Your task to perform on an android device: turn off wifi Image 0: 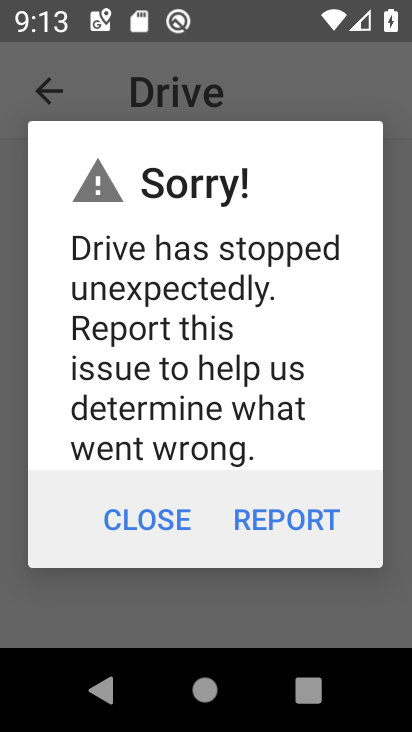
Step 0: press home button
Your task to perform on an android device: turn off wifi Image 1: 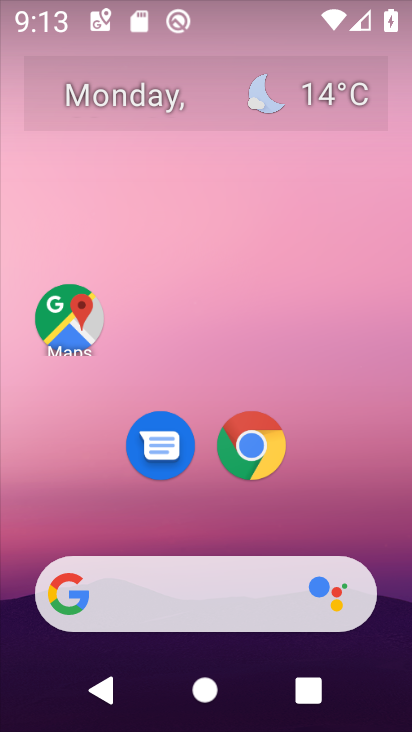
Step 1: drag from (208, 524) to (247, 99)
Your task to perform on an android device: turn off wifi Image 2: 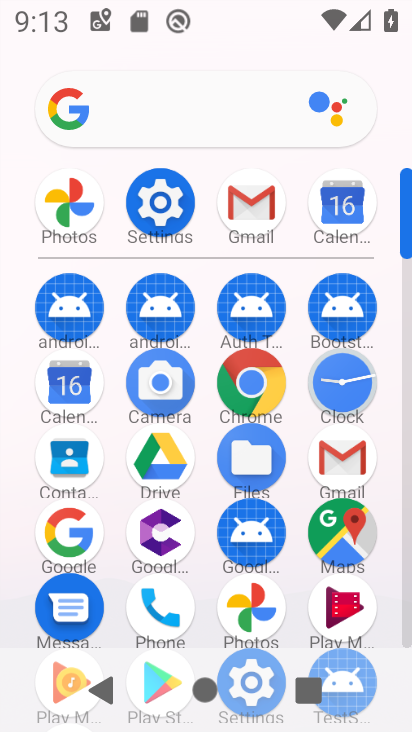
Step 2: click (158, 195)
Your task to perform on an android device: turn off wifi Image 3: 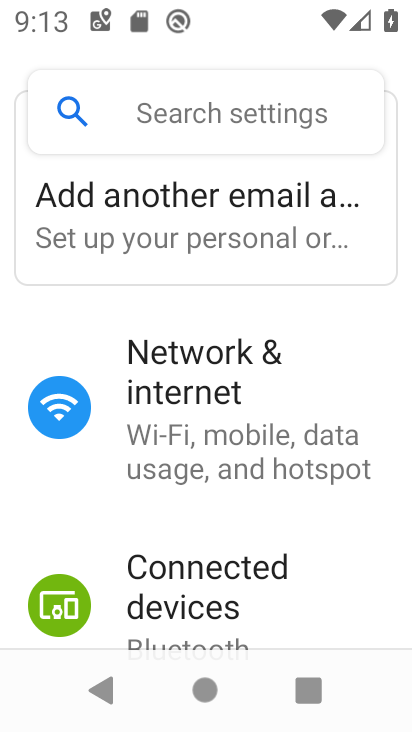
Step 3: click (113, 392)
Your task to perform on an android device: turn off wifi Image 4: 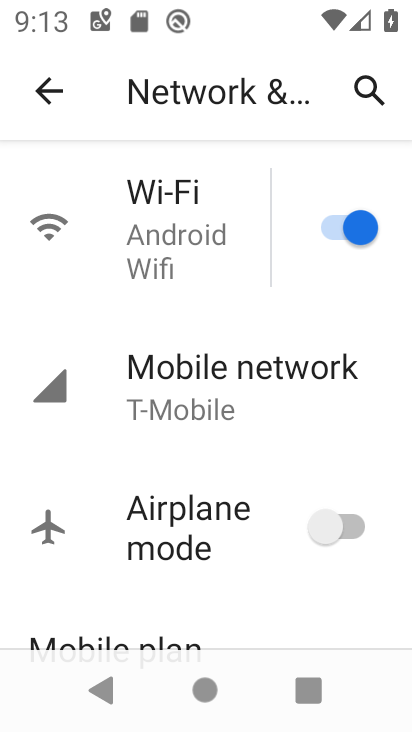
Step 4: click (333, 225)
Your task to perform on an android device: turn off wifi Image 5: 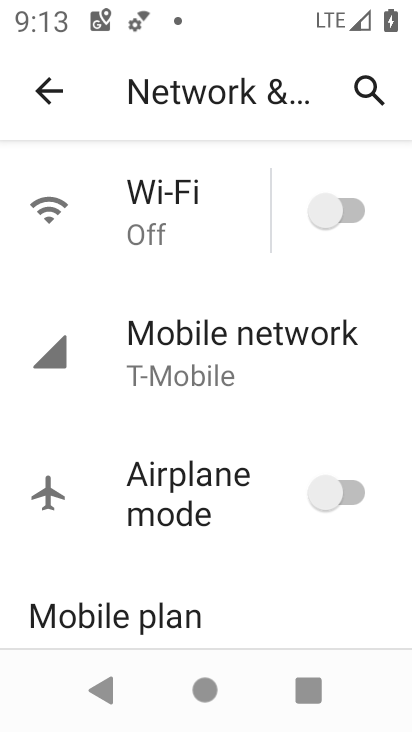
Step 5: task complete